Your task to perform on an android device: toggle data saver in the chrome app Image 0: 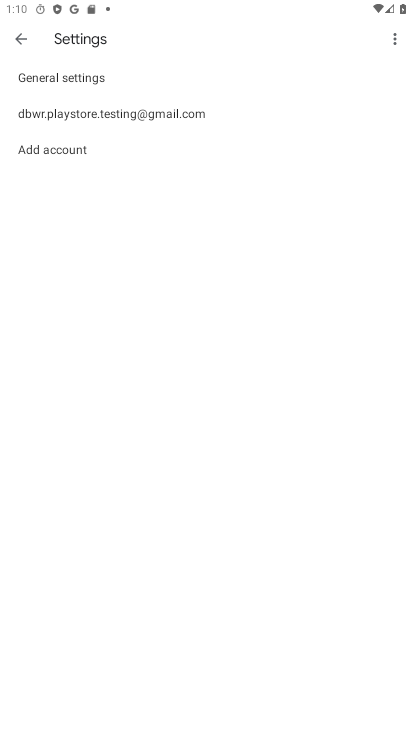
Step 0: press home button
Your task to perform on an android device: toggle data saver in the chrome app Image 1: 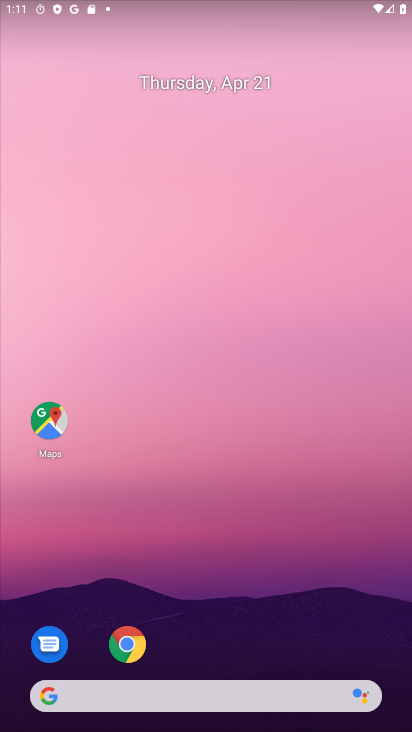
Step 1: click (132, 645)
Your task to perform on an android device: toggle data saver in the chrome app Image 2: 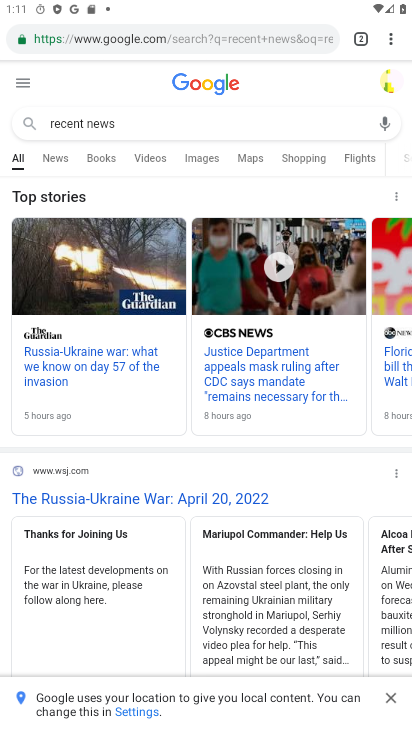
Step 2: drag from (394, 52) to (293, 483)
Your task to perform on an android device: toggle data saver in the chrome app Image 3: 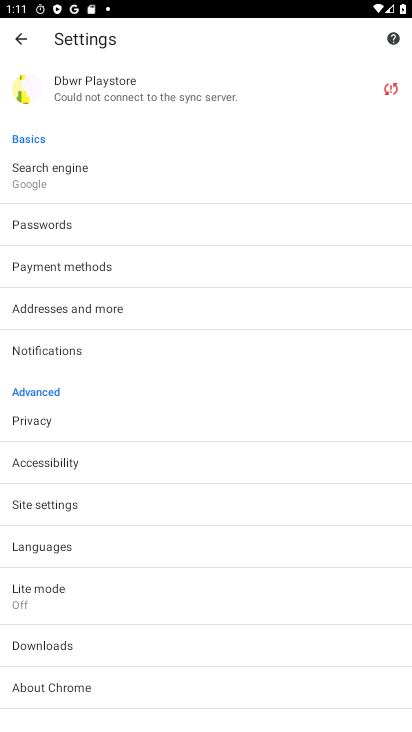
Step 3: click (188, 602)
Your task to perform on an android device: toggle data saver in the chrome app Image 4: 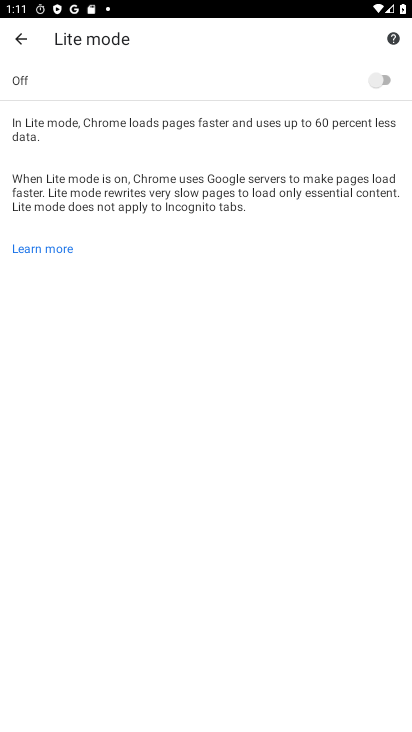
Step 4: click (384, 81)
Your task to perform on an android device: toggle data saver in the chrome app Image 5: 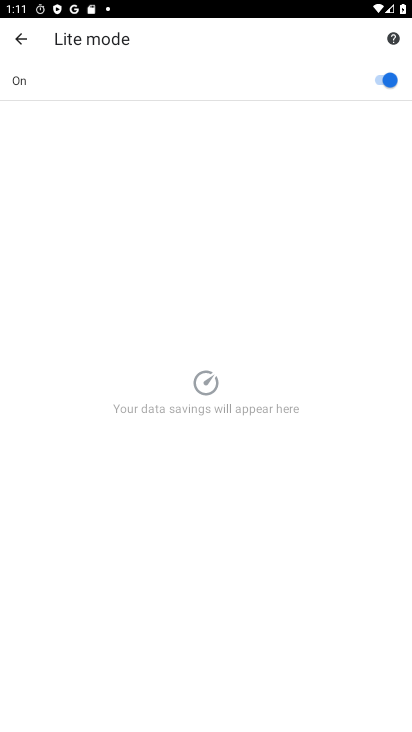
Step 5: task complete